Your task to perform on an android device: Go to Android settings Image 0: 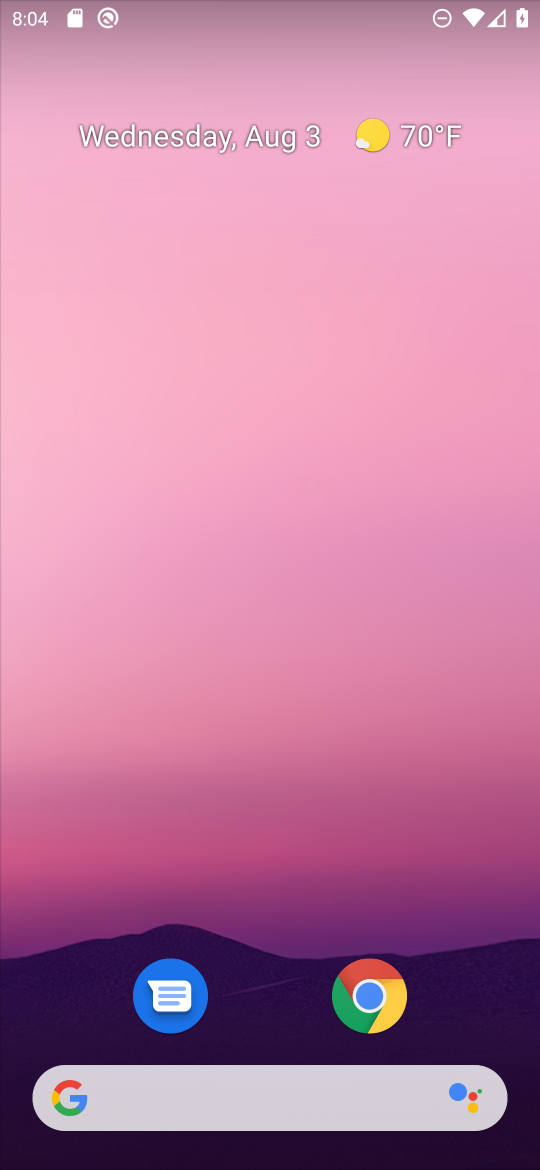
Step 0: drag from (246, 783) to (259, 0)
Your task to perform on an android device: Go to Android settings Image 1: 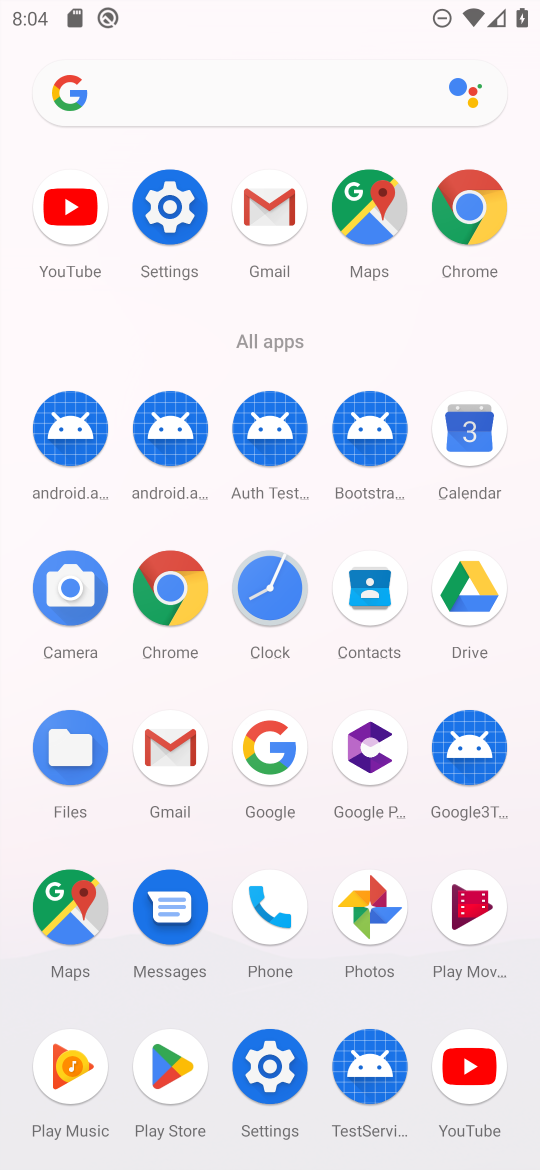
Step 1: click (173, 209)
Your task to perform on an android device: Go to Android settings Image 2: 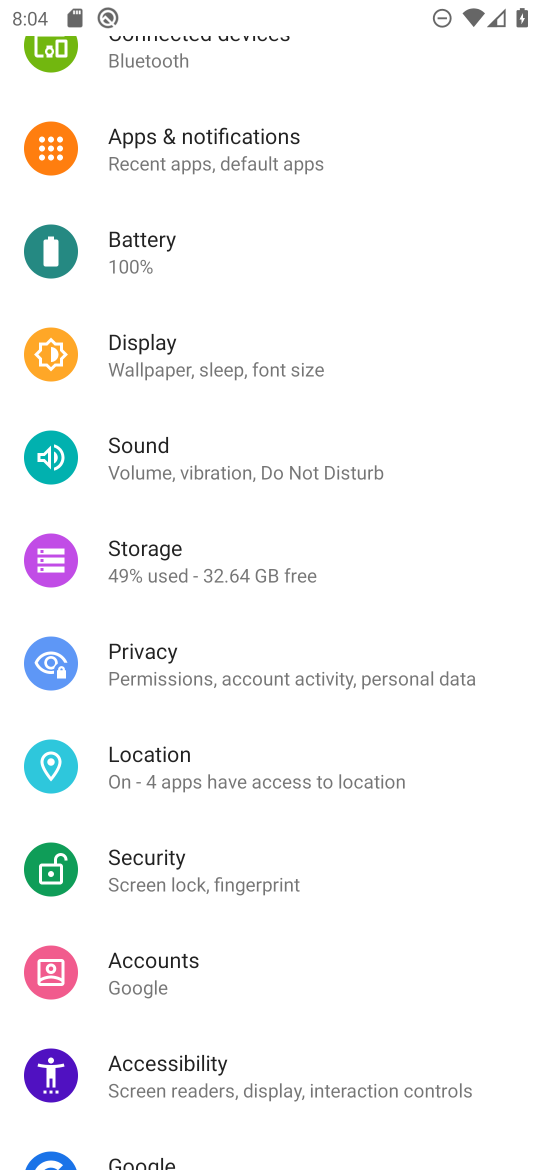
Step 2: drag from (303, 845) to (297, 477)
Your task to perform on an android device: Go to Android settings Image 3: 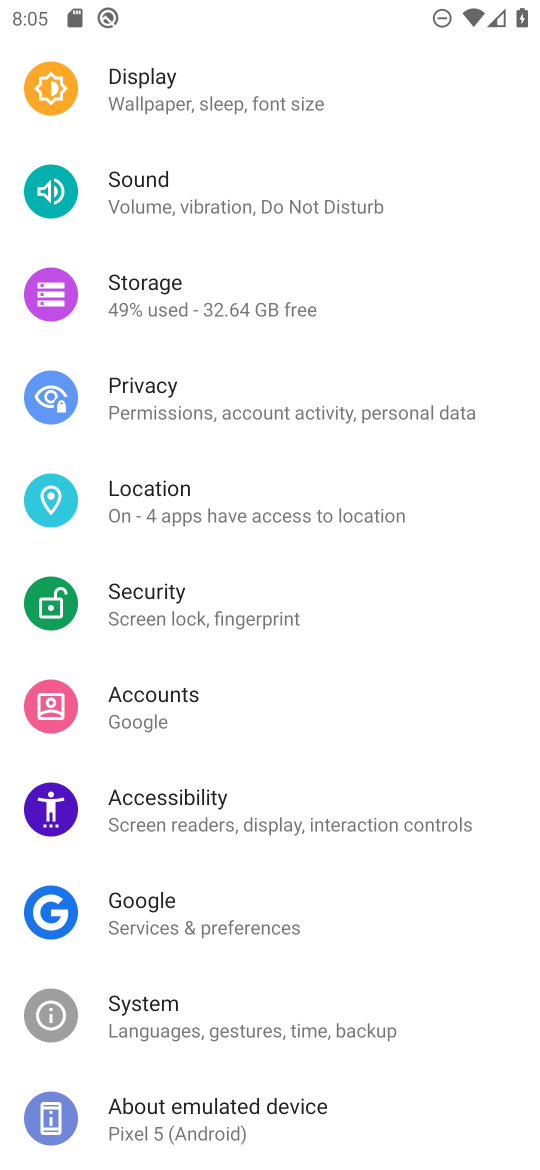
Step 3: click (256, 1127)
Your task to perform on an android device: Go to Android settings Image 4: 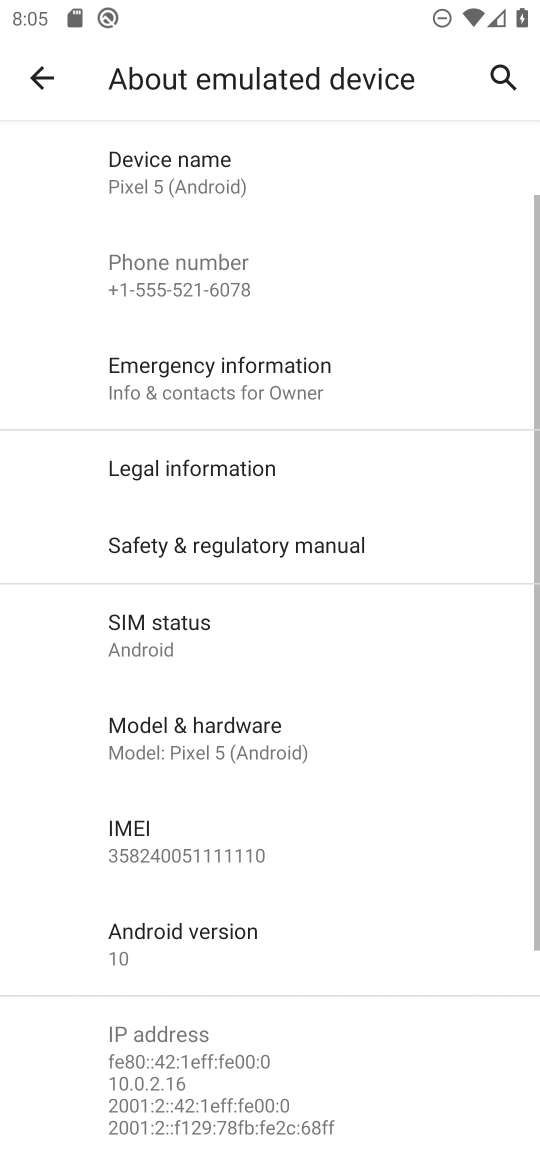
Step 4: task complete